Your task to perform on an android device: Open maps Image 0: 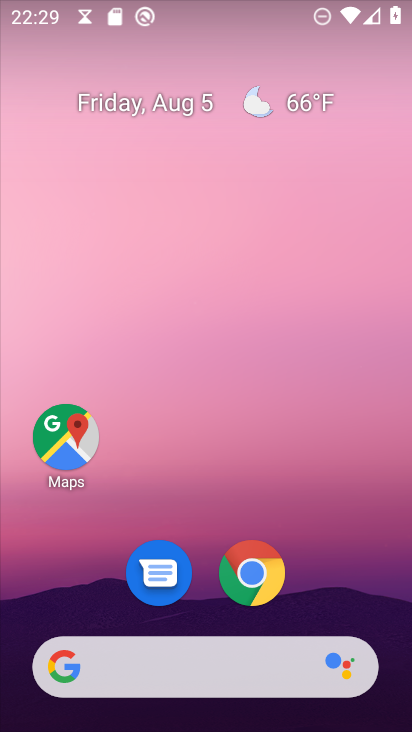
Step 0: click (69, 436)
Your task to perform on an android device: Open maps Image 1: 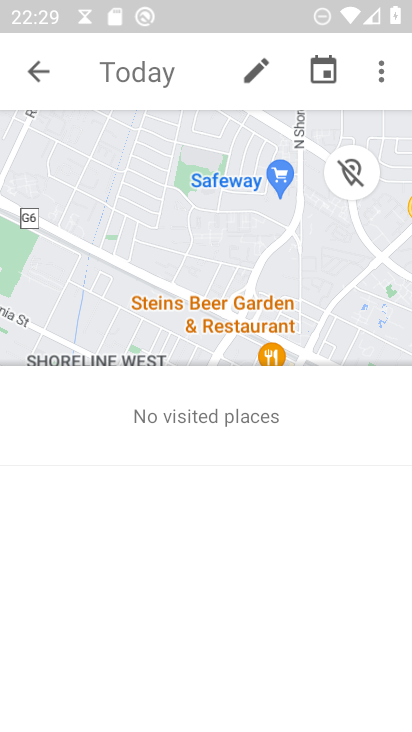
Step 1: task complete